Your task to perform on an android device: Open location settings Image 0: 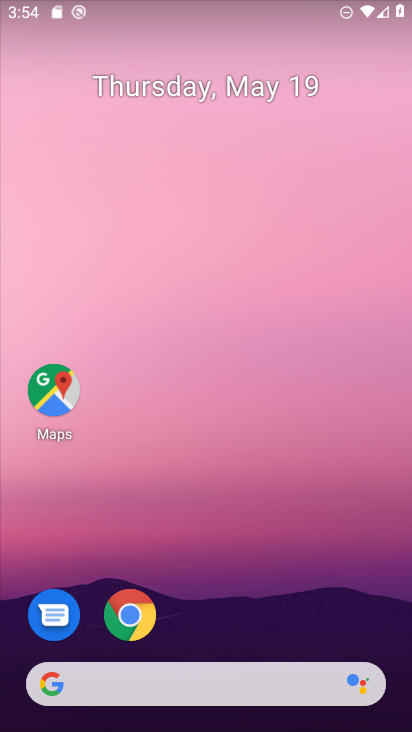
Step 0: drag from (273, 605) to (206, 219)
Your task to perform on an android device: Open location settings Image 1: 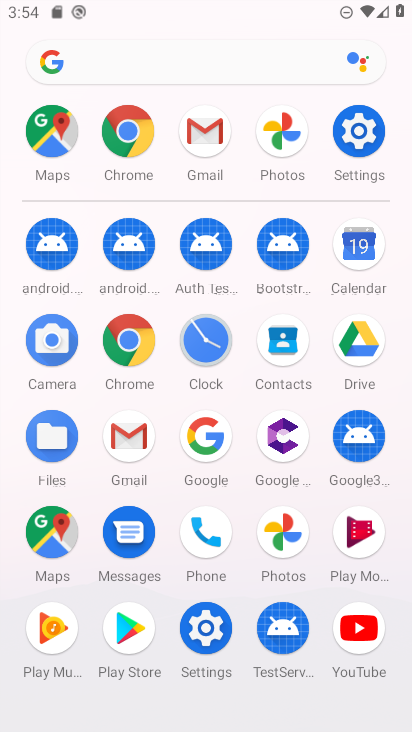
Step 1: click (366, 142)
Your task to perform on an android device: Open location settings Image 2: 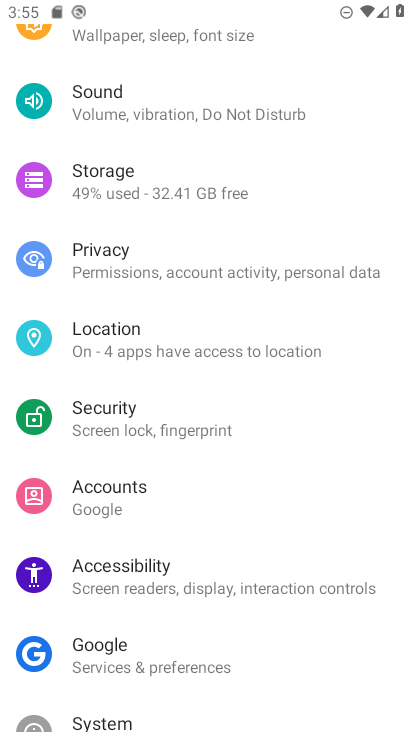
Step 2: click (238, 340)
Your task to perform on an android device: Open location settings Image 3: 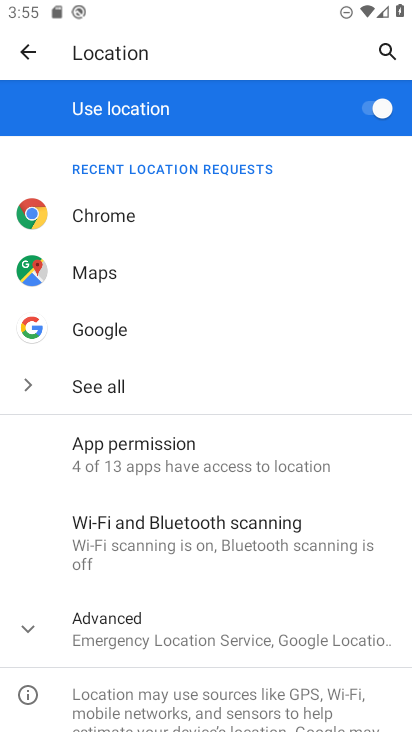
Step 3: task complete